Your task to perform on an android device: turn on bluetooth scan Image 0: 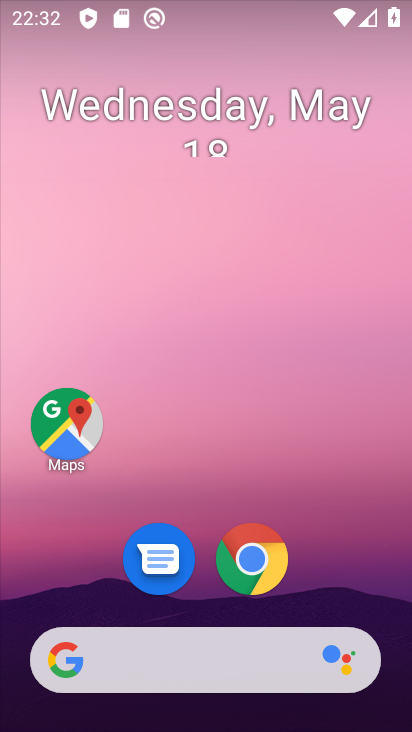
Step 0: drag from (322, 589) to (265, 2)
Your task to perform on an android device: turn on bluetooth scan Image 1: 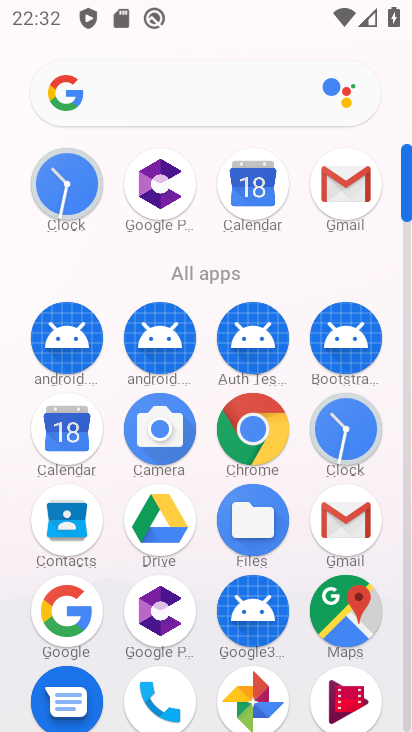
Step 1: drag from (177, 638) to (180, 196)
Your task to perform on an android device: turn on bluetooth scan Image 2: 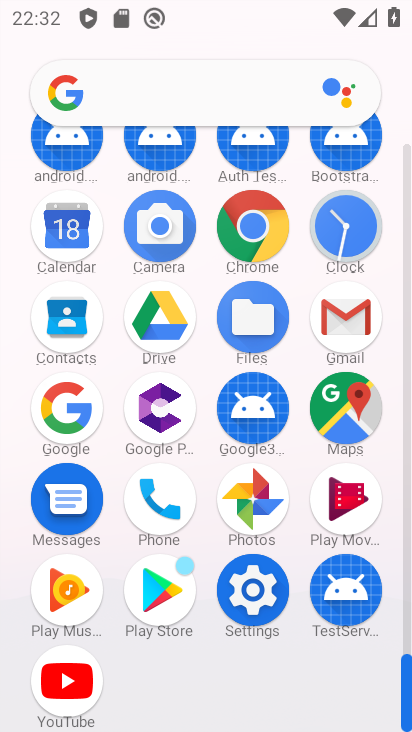
Step 2: click (246, 593)
Your task to perform on an android device: turn on bluetooth scan Image 3: 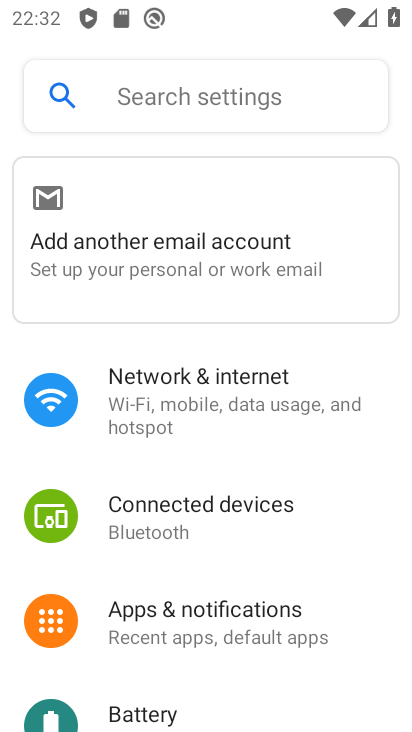
Step 3: drag from (174, 651) to (121, 1)
Your task to perform on an android device: turn on bluetooth scan Image 4: 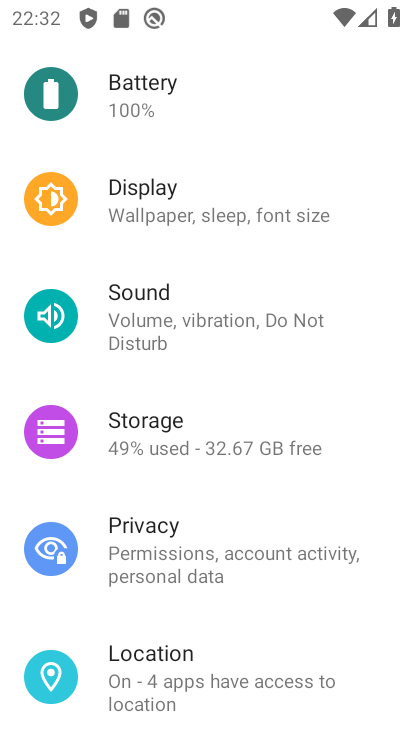
Step 4: click (168, 657)
Your task to perform on an android device: turn on bluetooth scan Image 5: 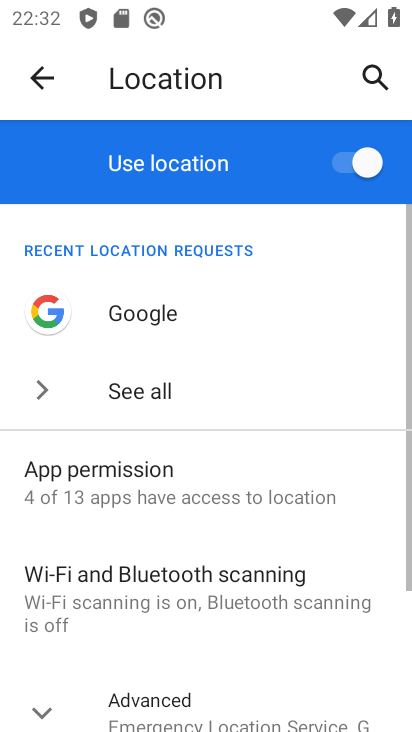
Step 5: click (124, 614)
Your task to perform on an android device: turn on bluetooth scan Image 6: 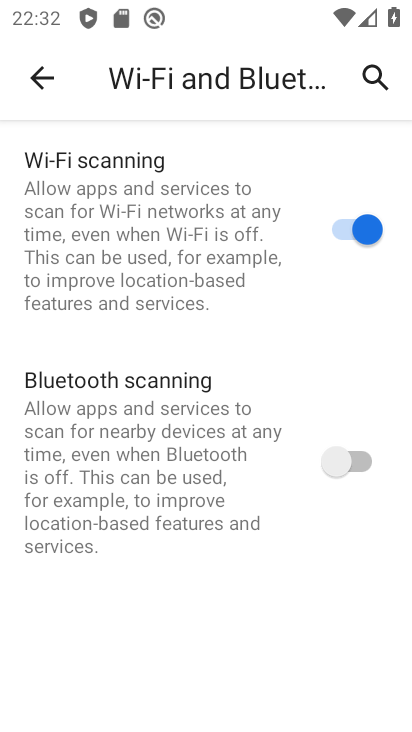
Step 6: click (358, 467)
Your task to perform on an android device: turn on bluetooth scan Image 7: 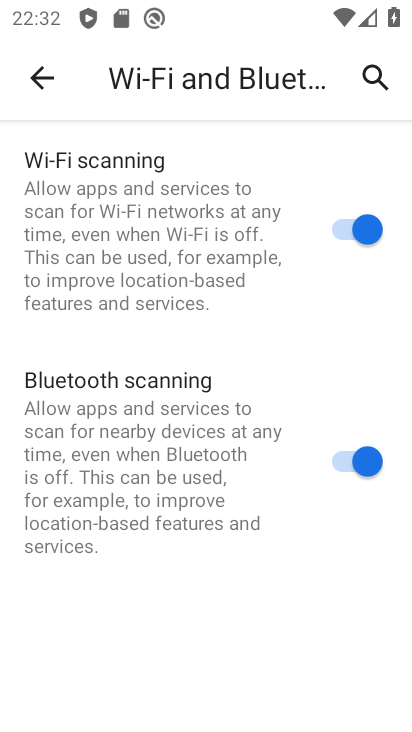
Step 7: task complete